Your task to perform on an android device: open app "Gmail" (install if not already installed) Image 0: 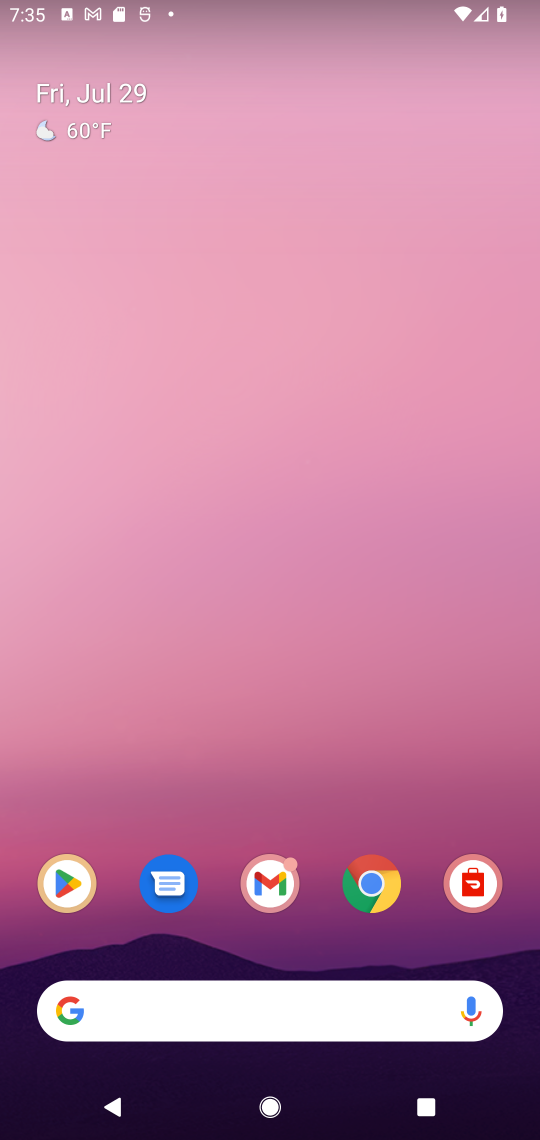
Step 0: click (48, 880)
Your task to perform on an android device: open app "Gmail" (install if not already installed) Image 1: 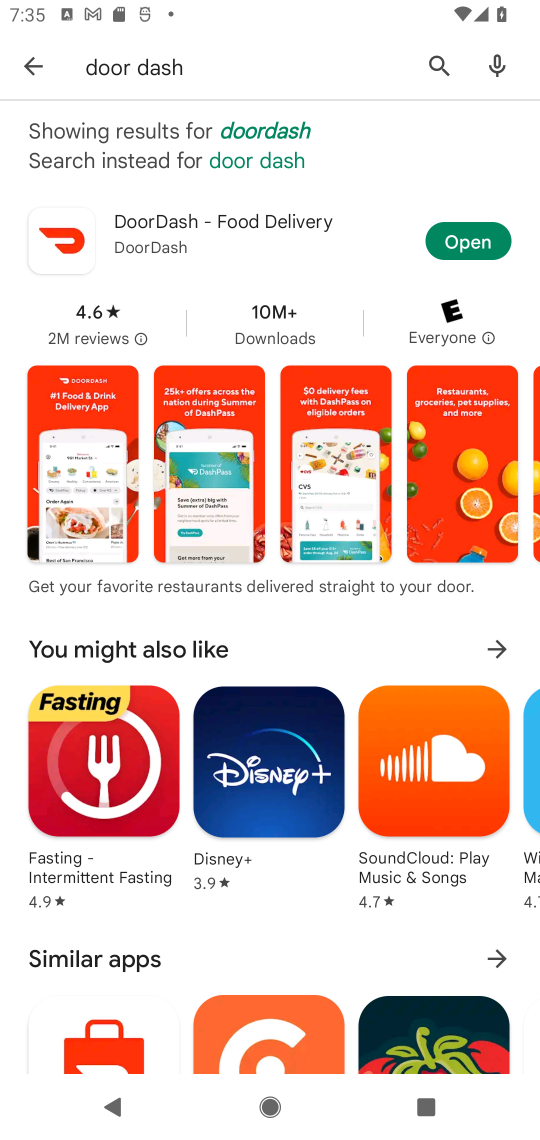
Step 1: click (438, 58)
Your task to perform on an android device: open app "Gmail" (install if not already installed) Image 2: 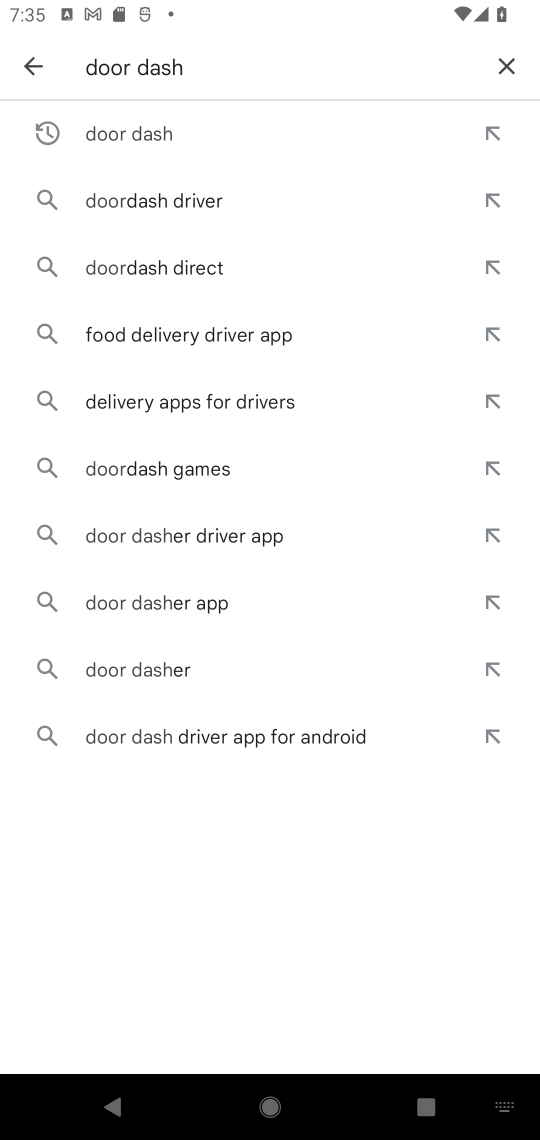
Step 2: click (514, 65)
Your task to perform on an android device: open app "Gmail" (install if not already installed) Image 3: 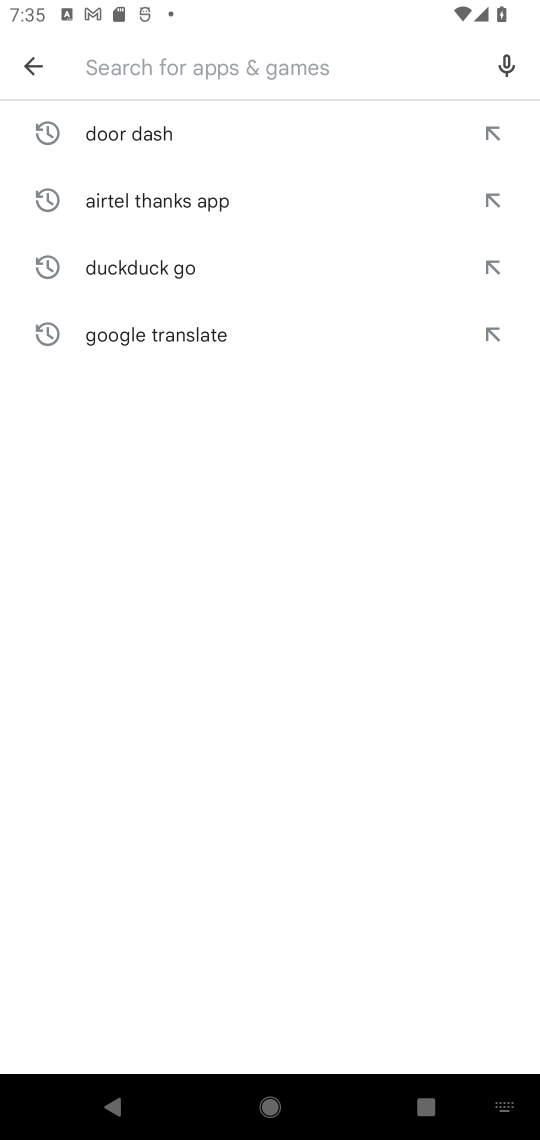
Step 3: click (128, 73)
Your task to perform on an android device: open app "Gmail" (install if not already installed) Image 4: 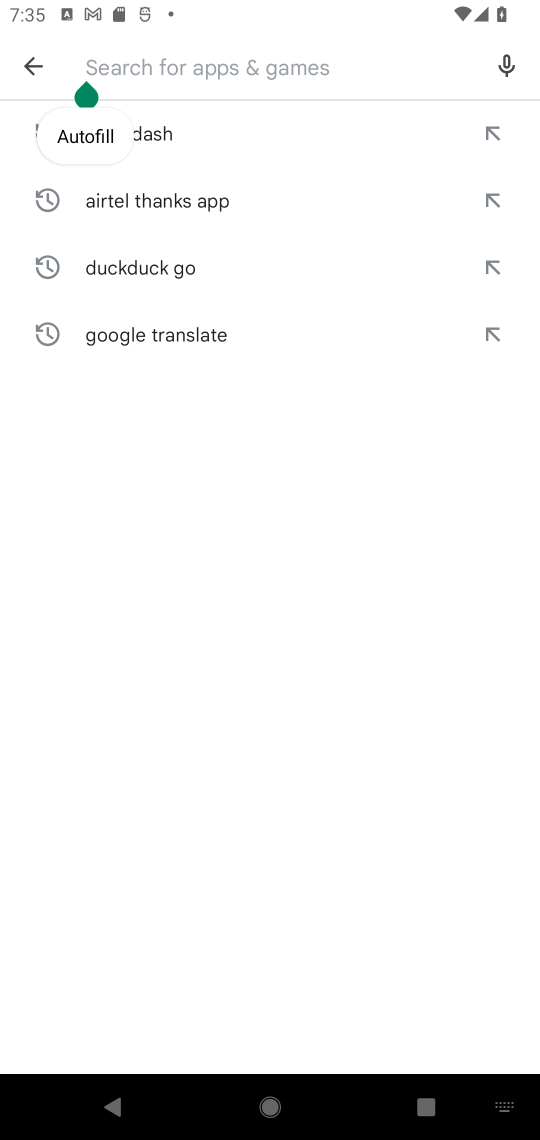
Step 4: type "gmail"
Your task to perform on an android device: open app "Gmail" (install if not already installed) Image 5: 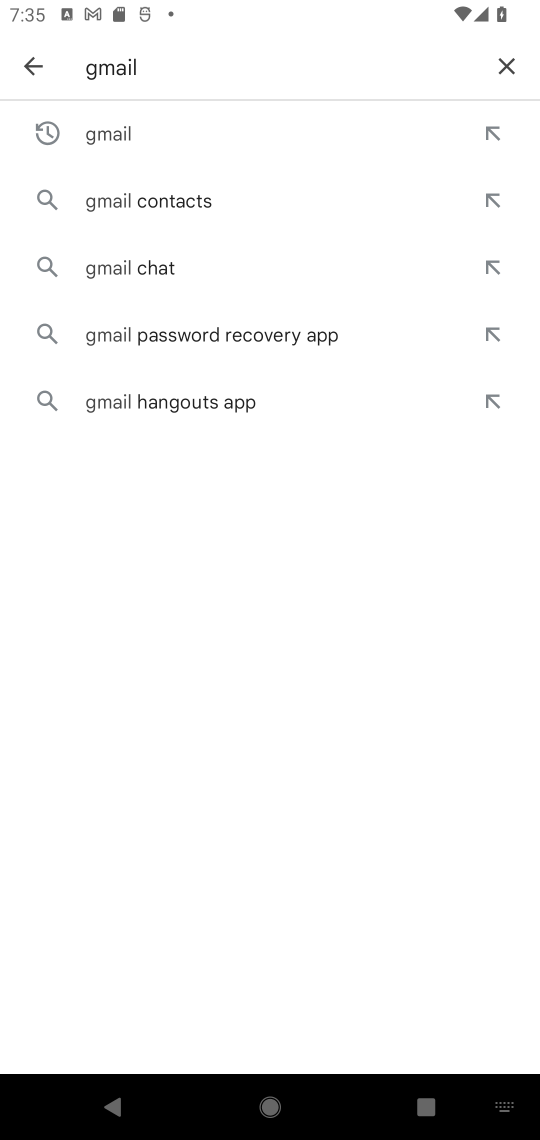
Step 5: click (95, 130)
Your task to perform on an android device: open app "Gmail" (install if not already installed) Image 6: 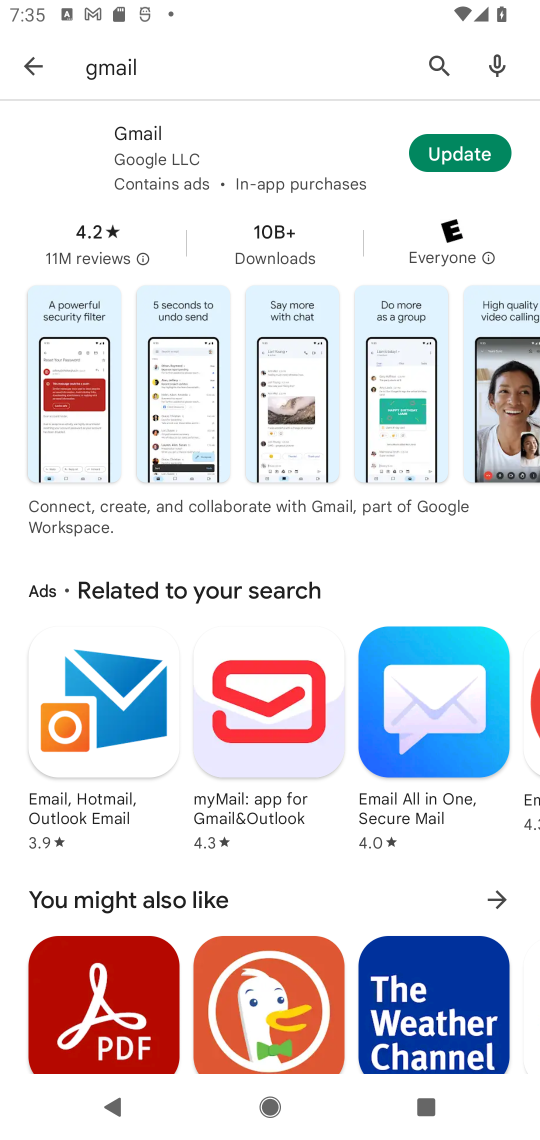
Step 6: click (175, 160)
Your task to perform on an android device: open app "Gmail" (install if not already installed) Image 7: 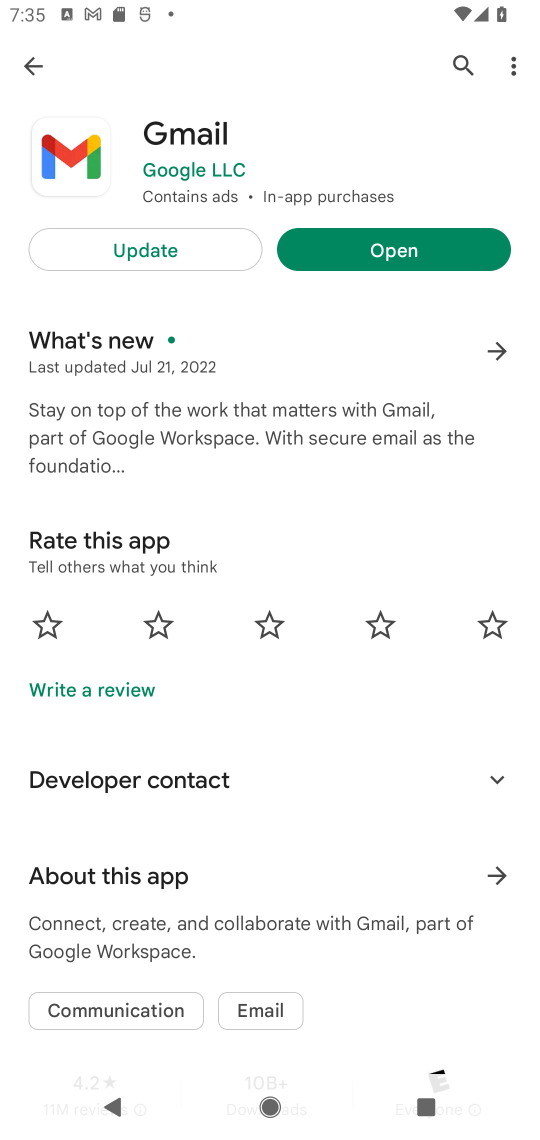
Step 7: click (396, 241)
Your task to perform on an android device: open app "Gmail" (install if not already installed) Image 8: 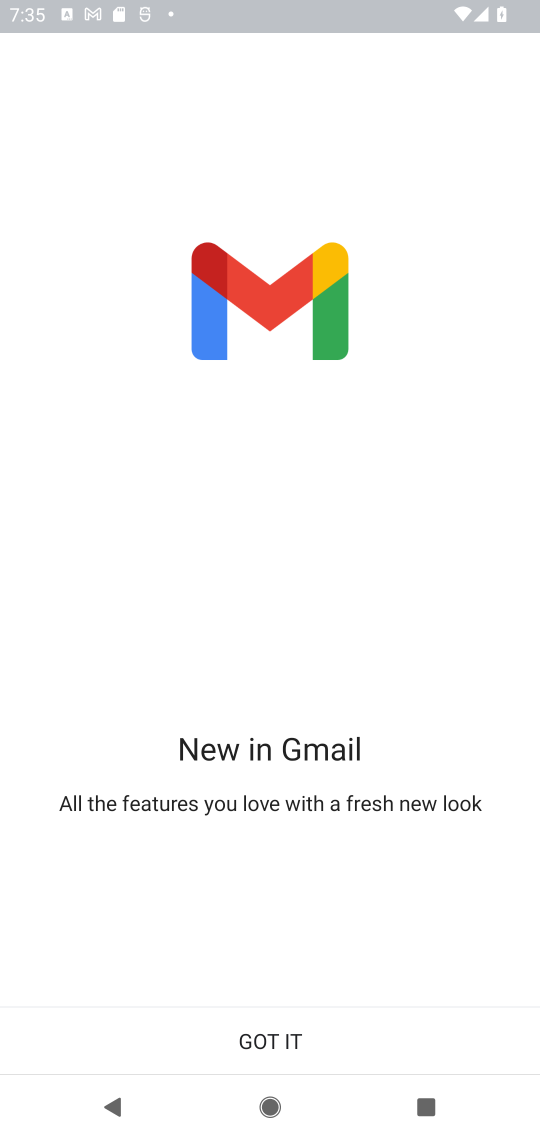
Step 8: task complete